Your task to perform on an android device: Open the Play Movies app and select the watchlist tab. Image 0: 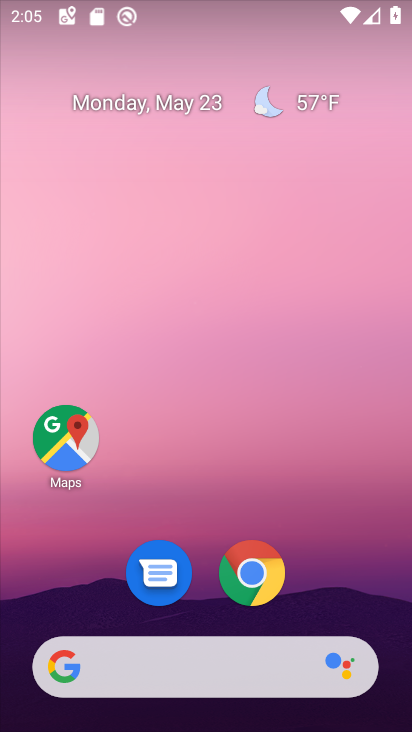
Step 0: drag from (350, 526) to (332, 78)
Your task to perform on an android device: Open the Play Movies app and select the watchlist tab. Image 1: 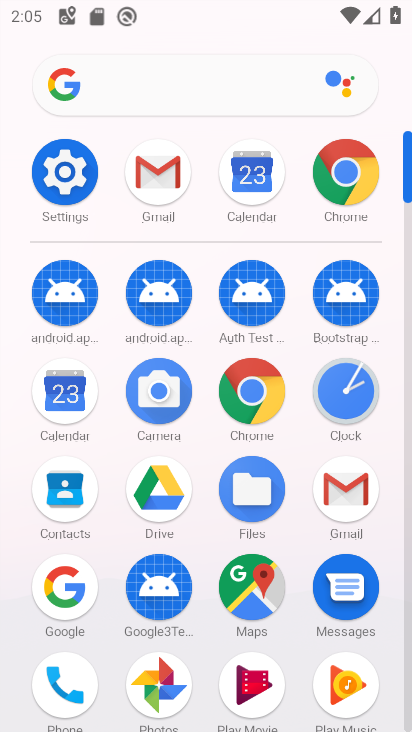
Step 1: drag from (306, 645) to (312, 222)
Your task to perform on an android device: Open the Play Movies app and select the watchlist tab. Image 2: 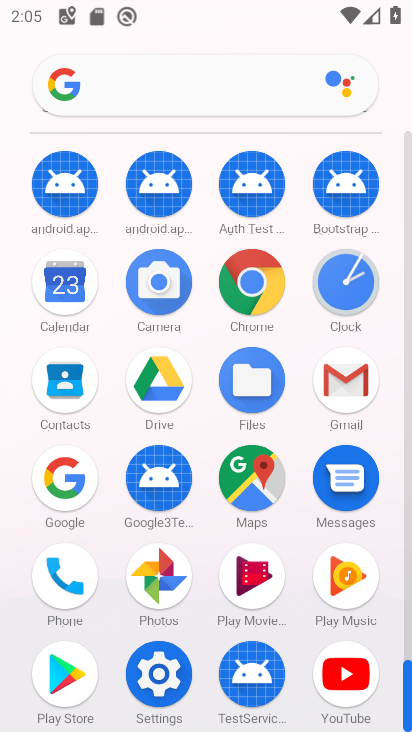
Step 2: click (250, 563)
Your task to perform on an android device: Open the Play Movies app and select the watchlist tab. Image 3: 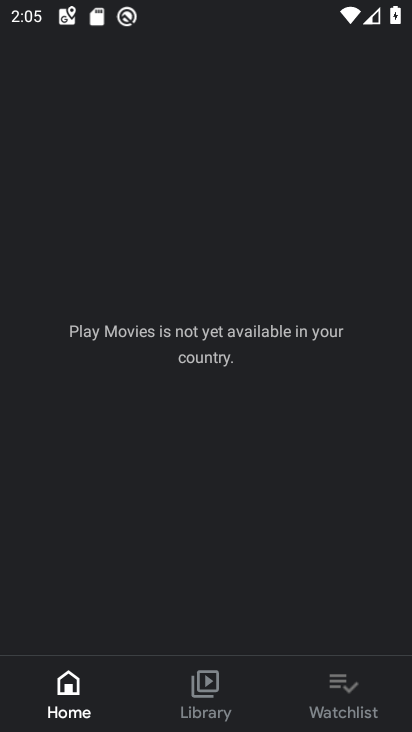
Step 3: click (350, 670)
Your task to perform on an android device: Open the Play Movies app and select the watchlist tab. Image 4: 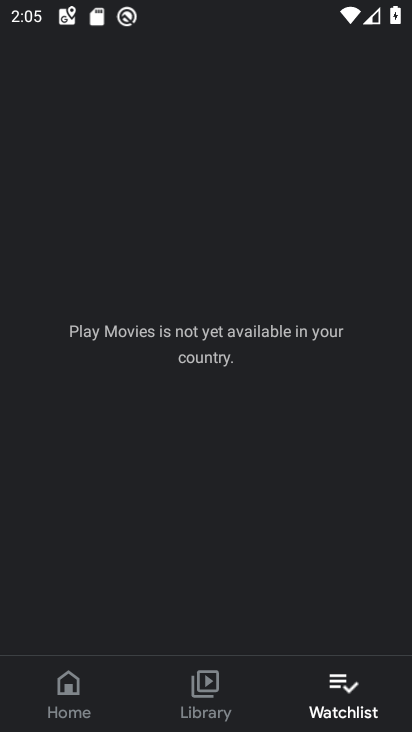
Step 4: task complete